Your task to perform on an android device: Show me the alarms in the clock app Image 0: 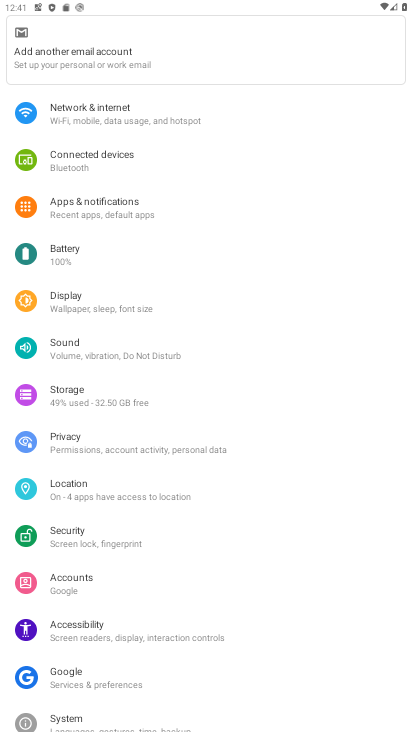
Step 0: press home button
Your task to perform on an android device: Show me the alarms in the clock app Image 1: 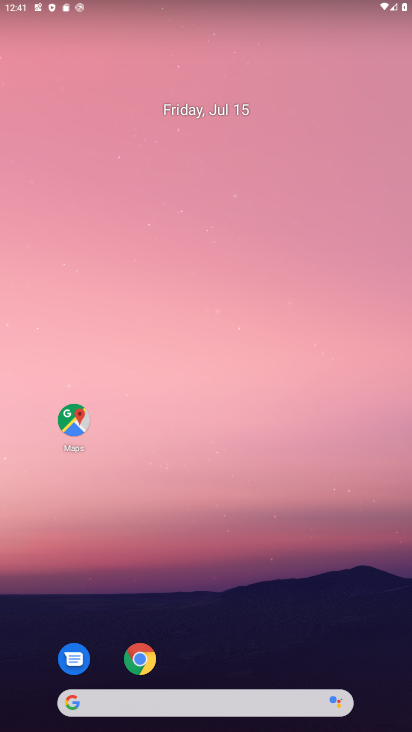
Step 1: drag from (246, 651) to (221, 189)
Your task to perform on an android device: Show me the alarms in the clock app Image 2: 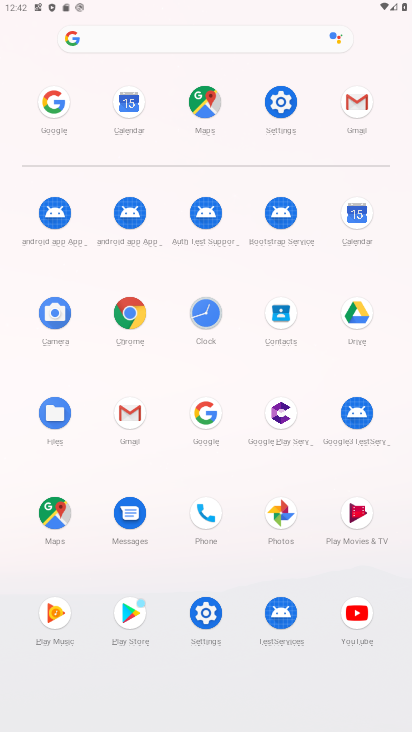
Step 2: click (199, 315)
Your task to perform on an android device: Show me the alarms in the clock app Image 3: 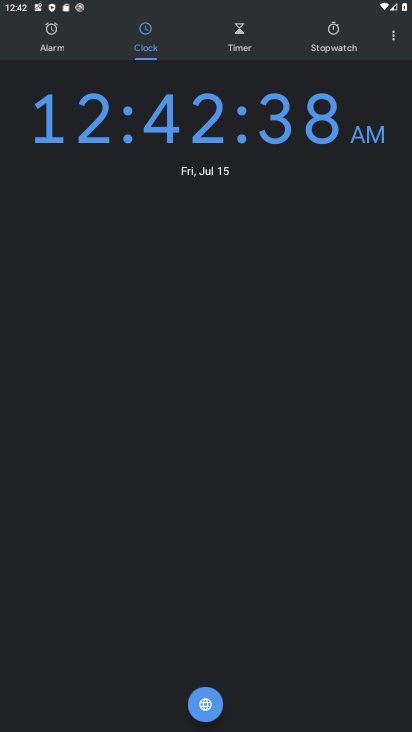
Step 3: click (41, 45)
Your task to perform on an android device: Show me the alarms in the clock app Image 4: 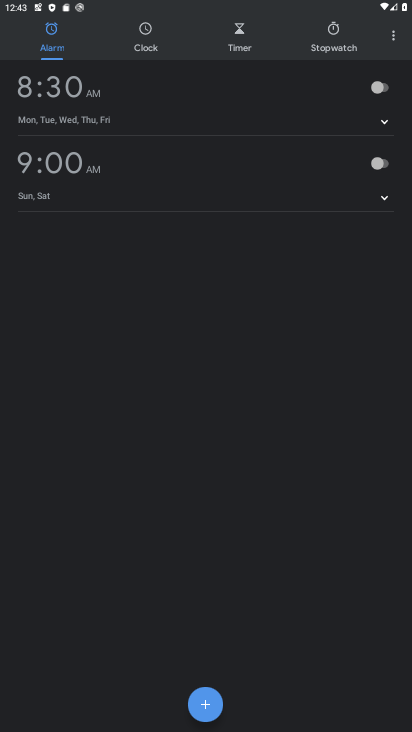
Step 4: task complete